Your task to perform on an android device: toggle javascript in the chrome app Image 0: 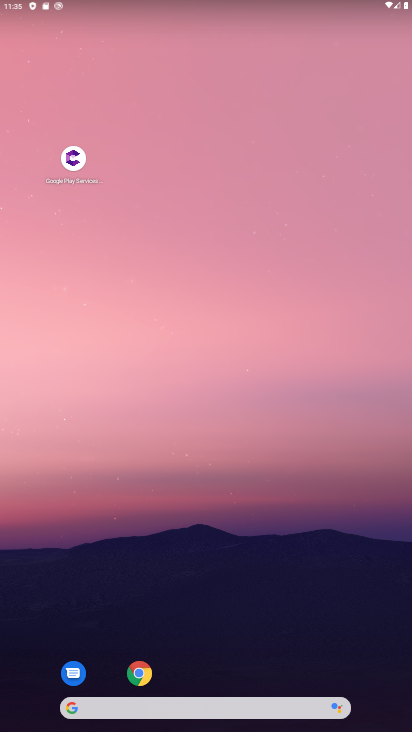
Step 0: click (139, 671)
Your task to perform on an android device: toggle javascript in the chrome app Image 1: 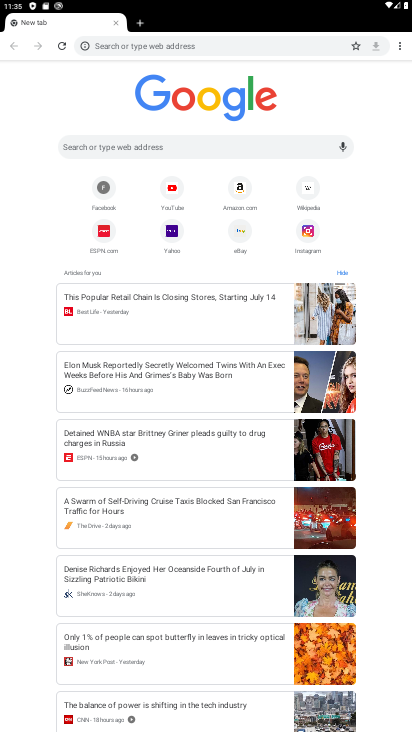
Step 1: click (400, 47)
Your task to perform on an android device: toggle javascript in the chrome app Image 2: 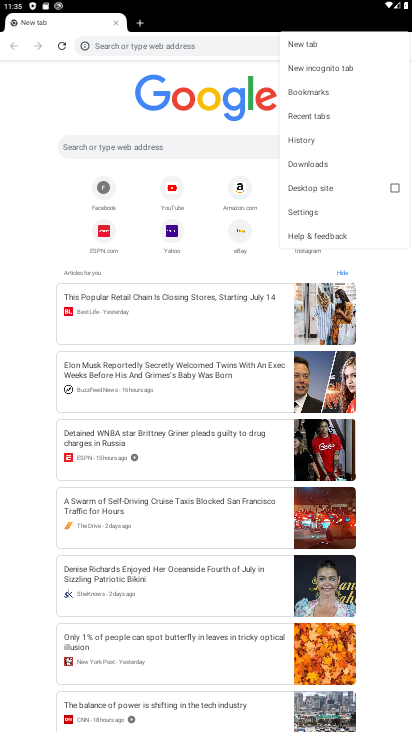
Step 2: click (315, 212)
Your task to perform on an android device: toggle javascript in the chrome app Image 3: 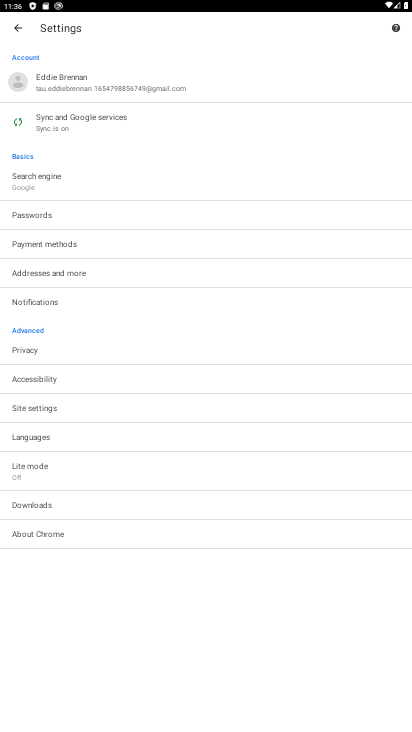
Step 3: click (51, 408)
Your task to perform on an android device: toggle javascript in the chrome app Image 4: 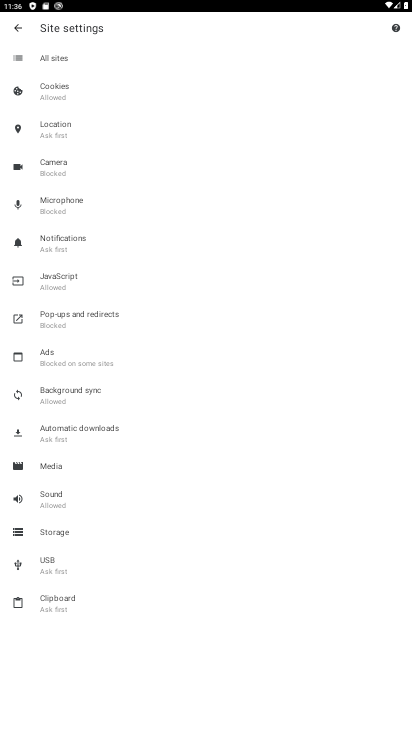
Step 4: click (54, 283)
Your task to perform on an android device: toggle javascript in the chrome app Image 5: 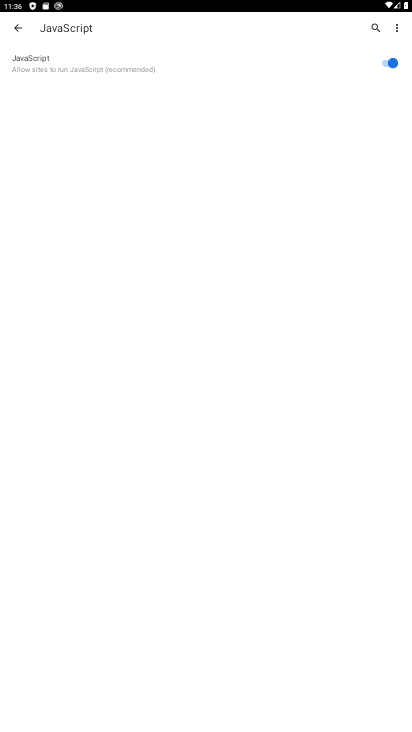
Step 5: click (388, 64)
Your task to perform on an android device: toggle javascript in the chrome app Image 6: 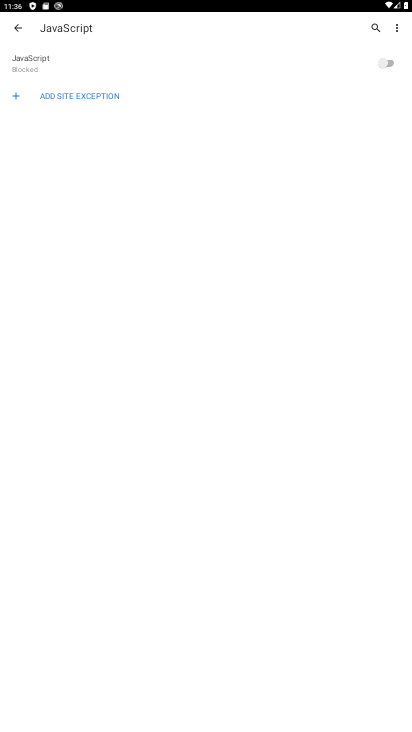
Step 6: task complete